Your task to perform on an android device: Go to sound settings Image 0: 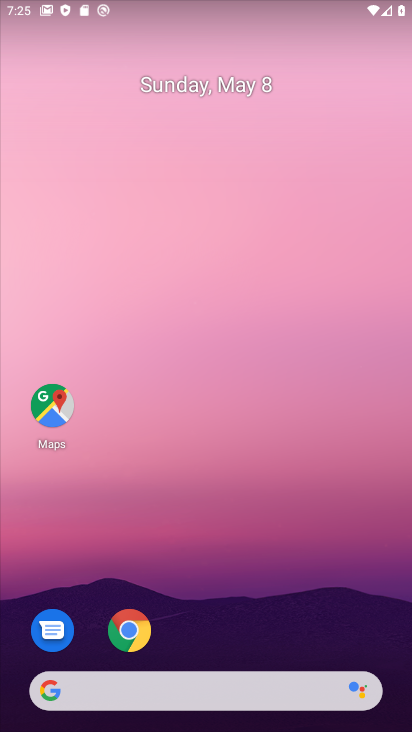
Step 0: drag from (279, 616) to (179, 188)
Your task to perform on an android device: Go to sound settings Image 1: 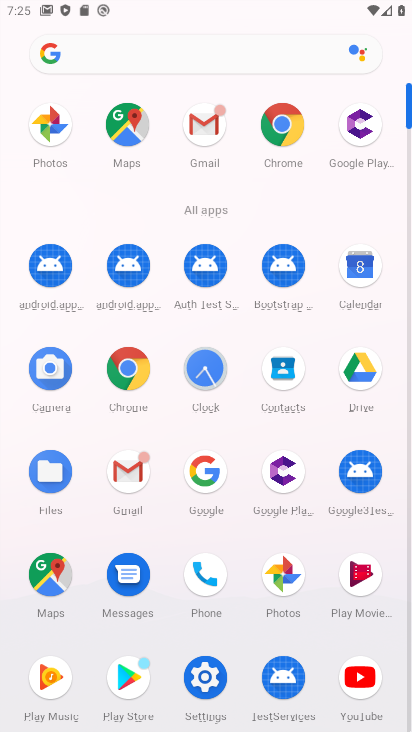
Step 1: click (211, 662)
Your task to perform on an android device: Go to sound settings Image 2: 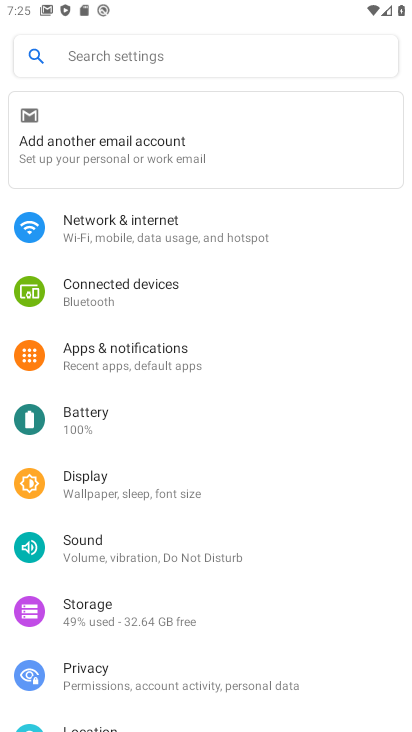
Step 2: click (199, 563)
Your task to perform on an android device: Go to sound settings Image 3: 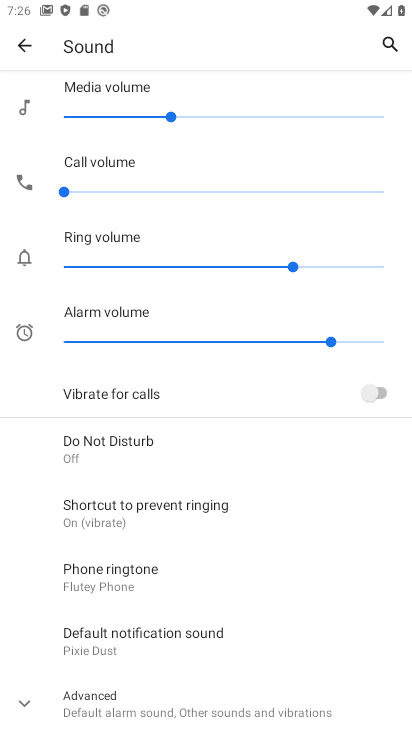
Step 3: task complete